Your task to perform on an android device: snooze an email in the gmail app Image 0: 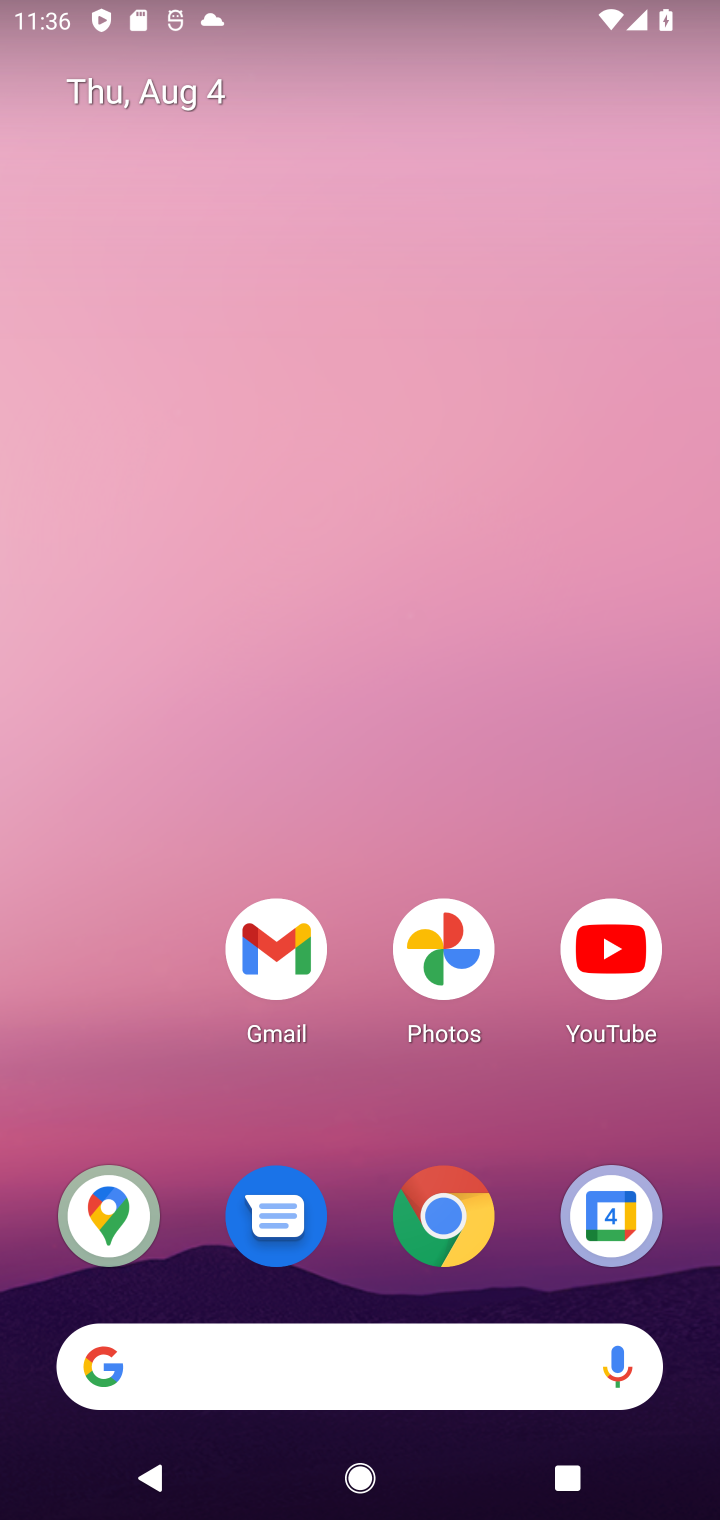
Step 0: drag from (350, 1378) to (439, 98)
Your task to perform on an android device: snooze an email in the gmail app Image 1: 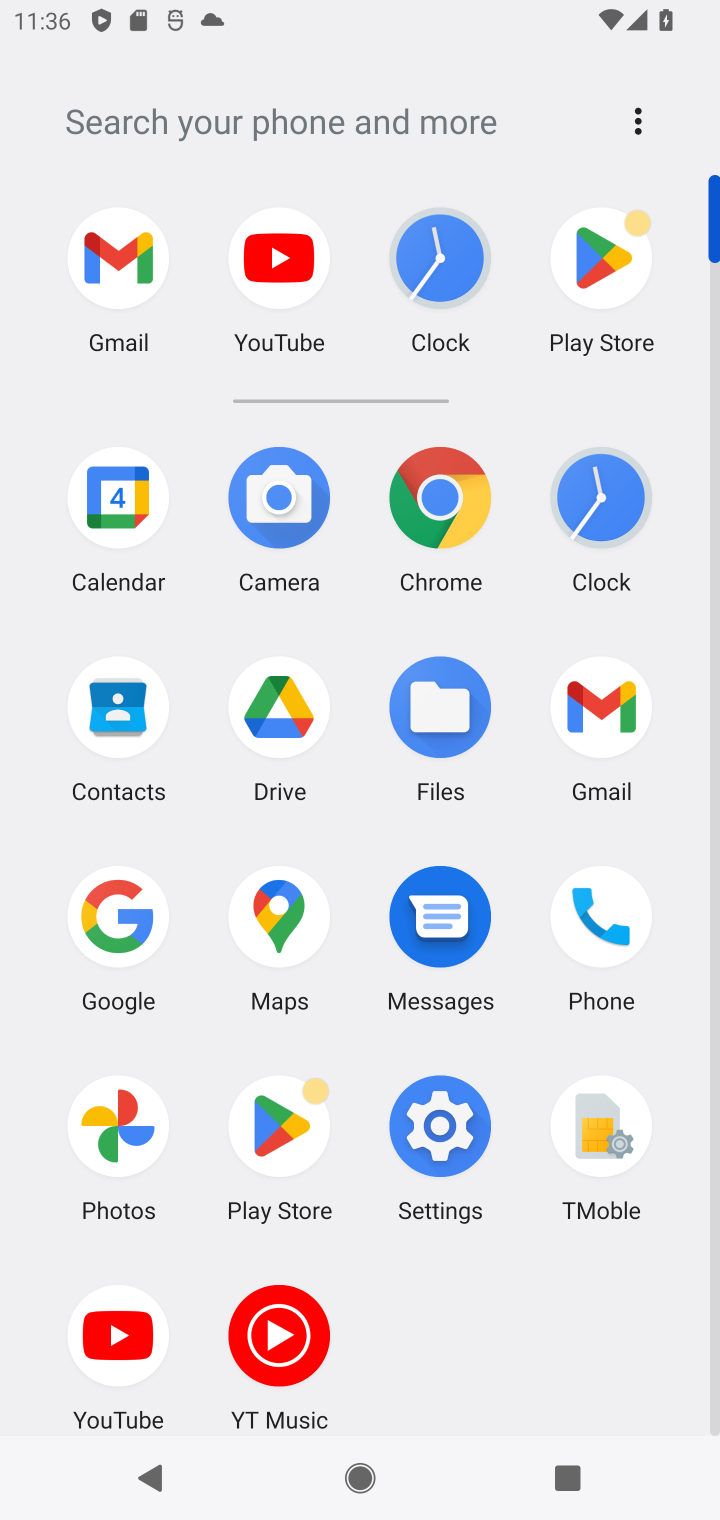
Step 1: click (118, 258)
Your task to perform on an android device: snooze an email in the gmail app Image 2: 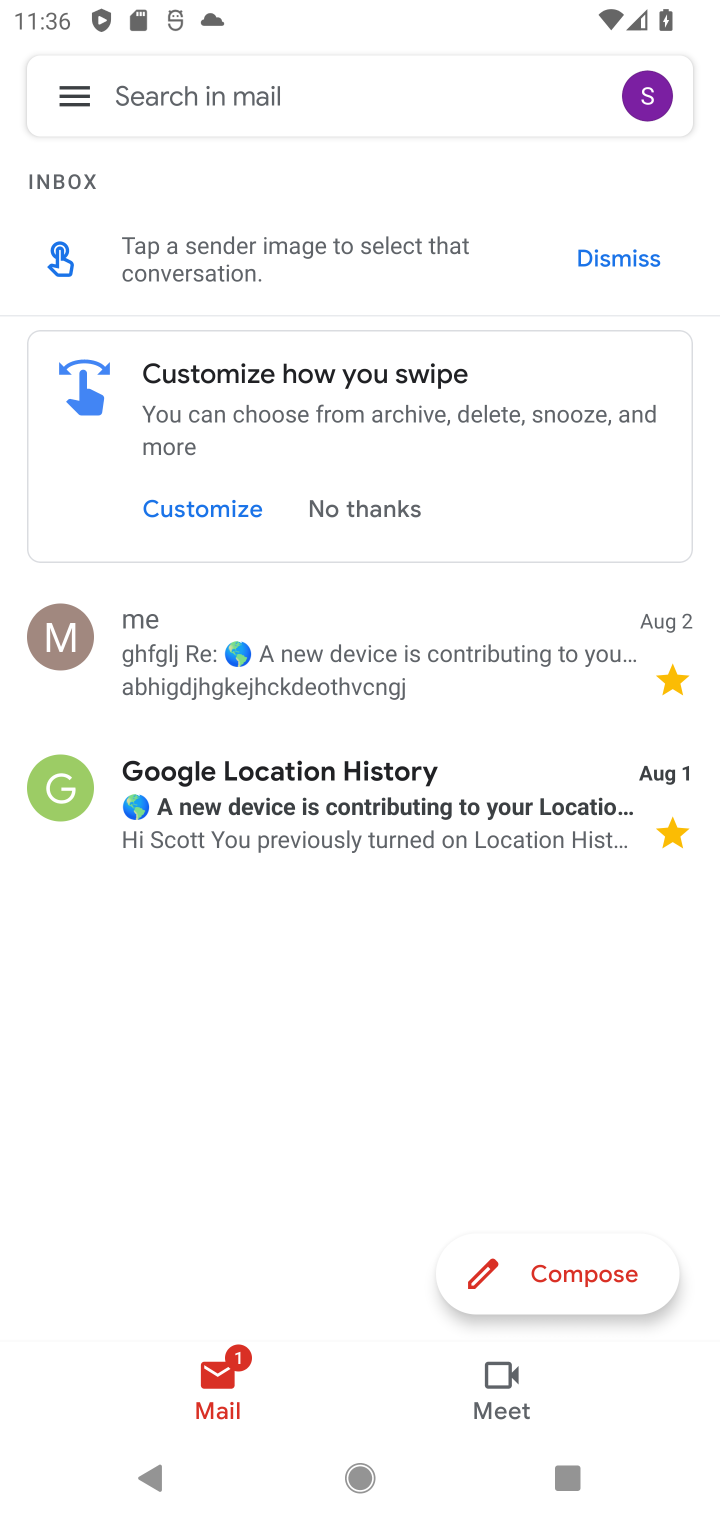
Step 2: click (247, 661)
Your task to perform on an android device: snooze an email in the gmail app Image 3: 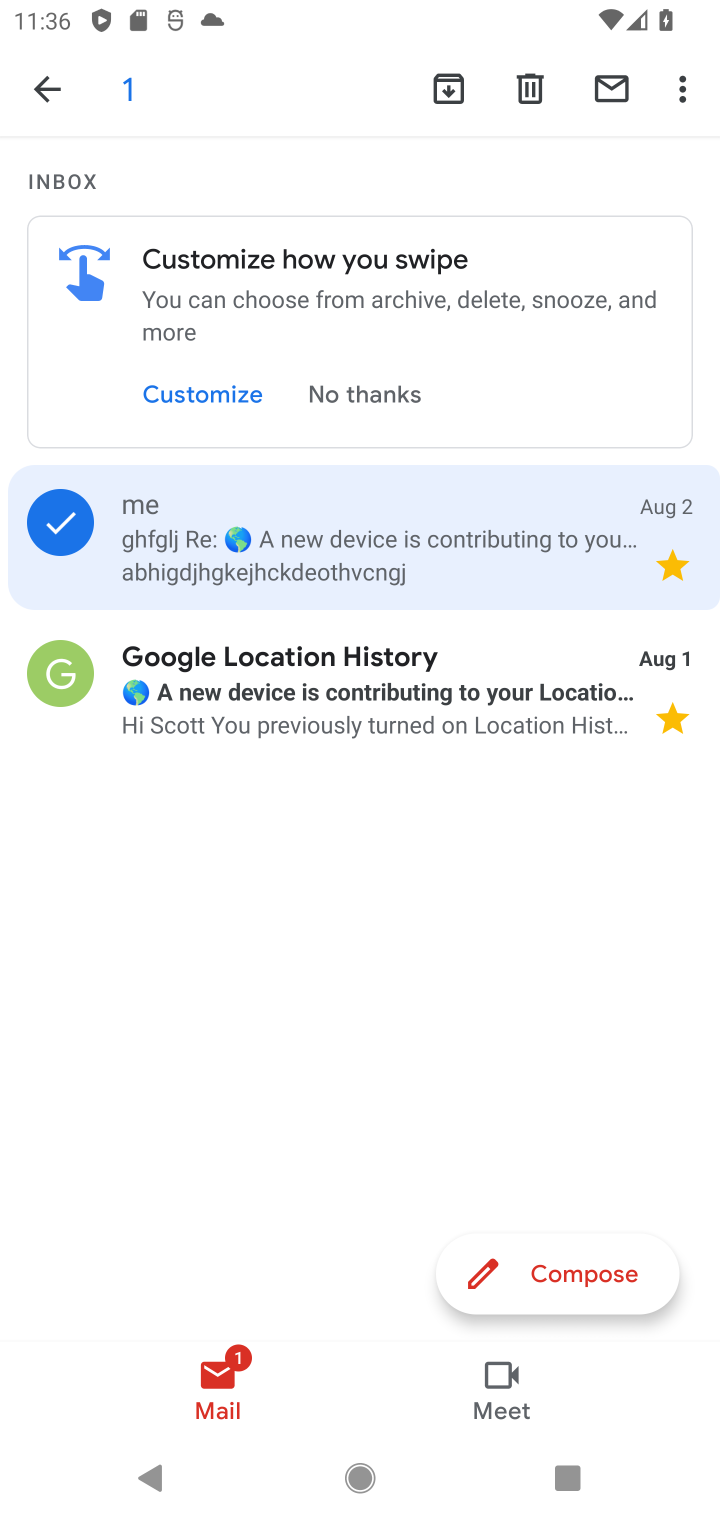
Step 3: click (178, 516)
Your task to perform on an android device: snooze an email in the gmail app Image 4: 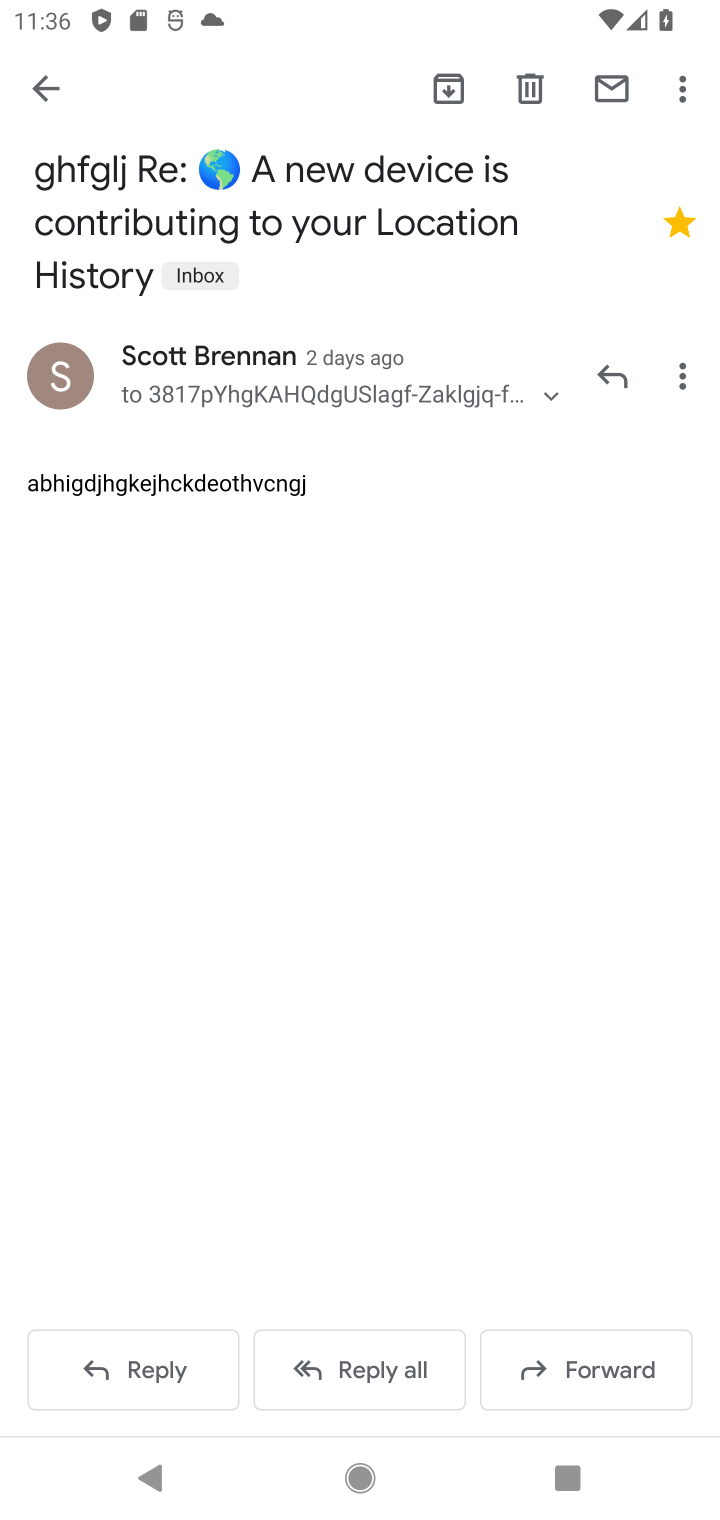
Step 4: click (678, 89)
Your task to perform on an android device: snooze an email in the gmail app Image 5: 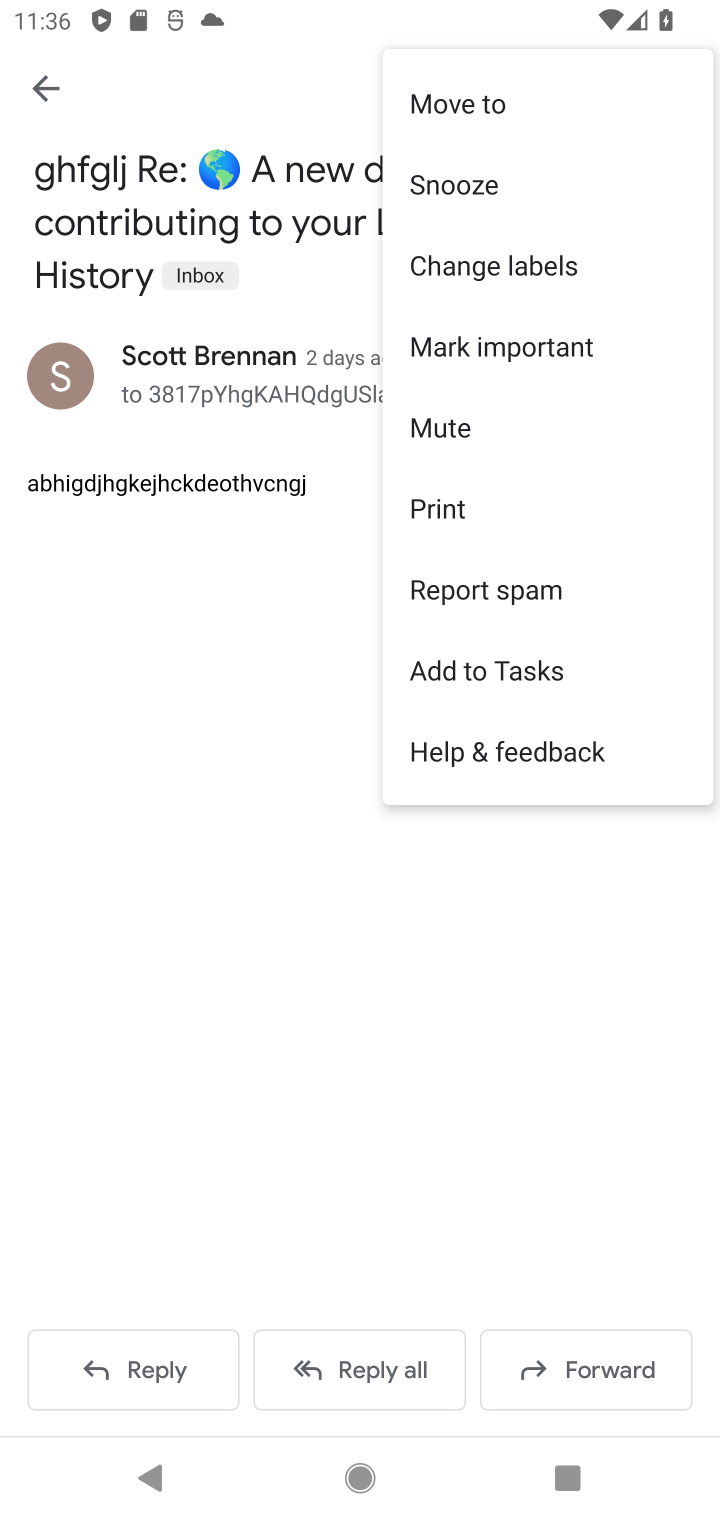
Step 5: click (478, 177)
Your task to perform on an android device: snooze an email in the gmail app Image 6: 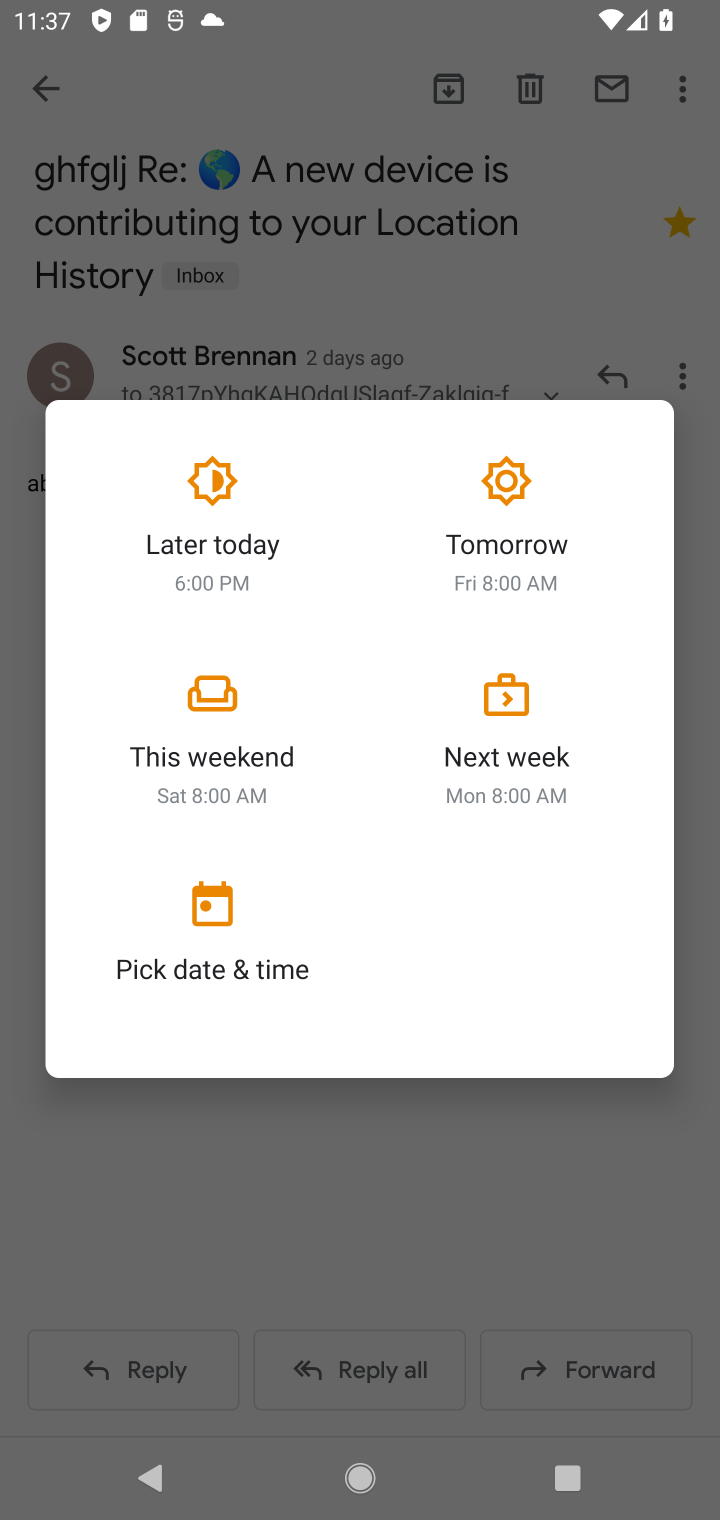
Step 6: click (506, 664)
Your task to perform on an android device: snooze an email in the gmail app Image 7: 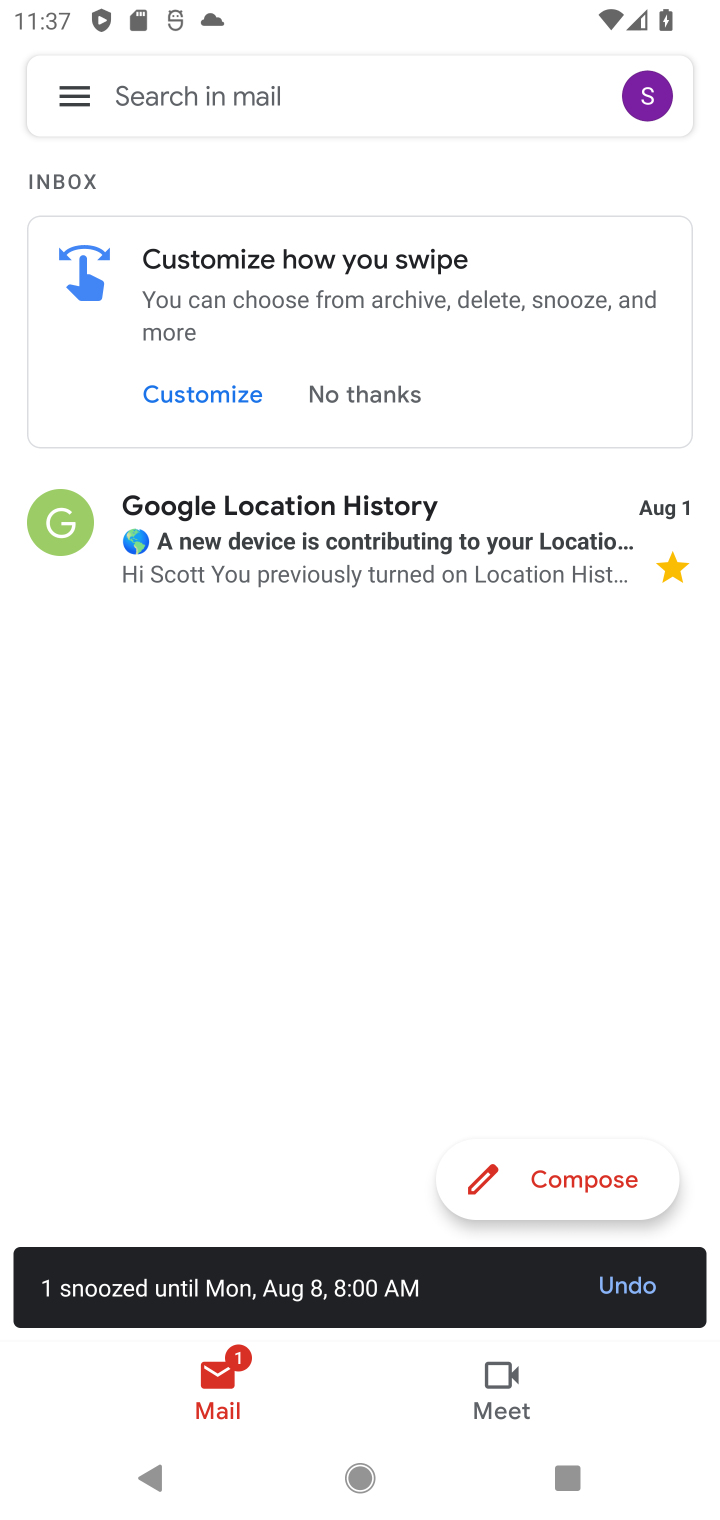
Step 7: task complete